Your task to perform on an android device: turn on bluetooth scan Image 0: 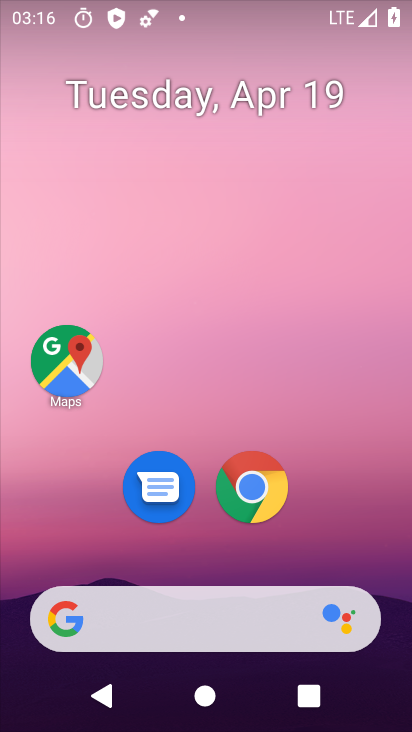
Step 0: click (61, 346)
Your task to perform on an android device: turn on bluetooth scan Image 1: 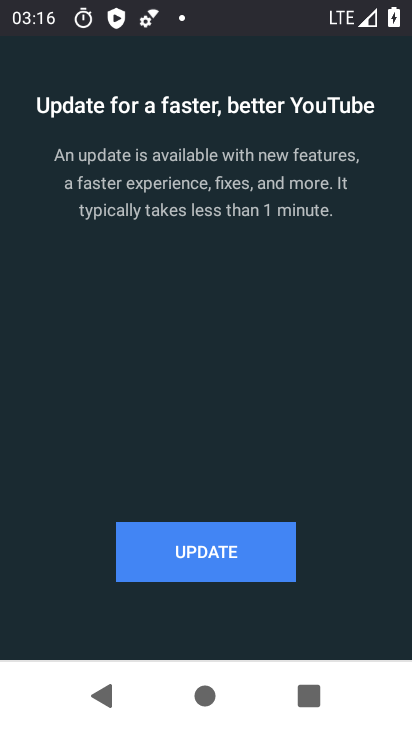
Step 1: press home button
Your task to perform on an android device: turn on bluetooth scan Image 2: 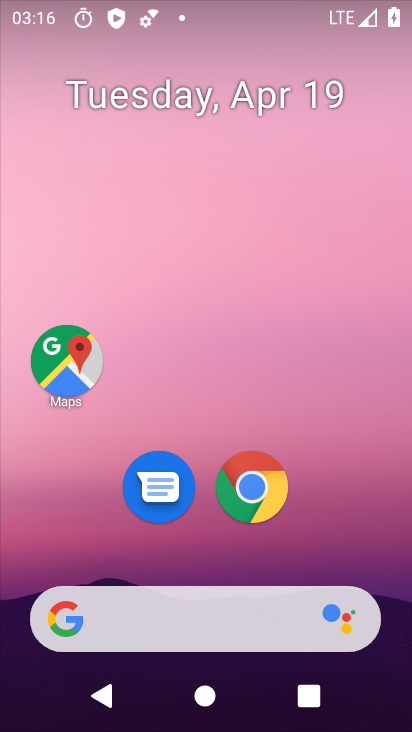
Step 2: drag from (229, 303) to (258, 31)
Your task to perform on an android device: turn on bluetooth scan Image 3: 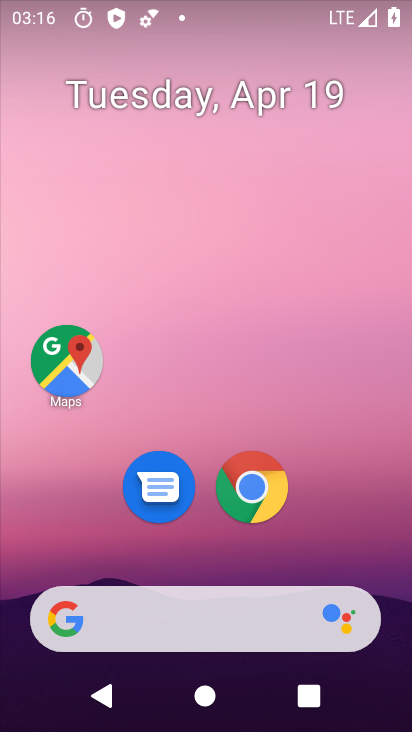
Step 3: drag from (206, 490) to (252, 21)
Your task to perform on an android device: turn on bluetooth scan Image 4: 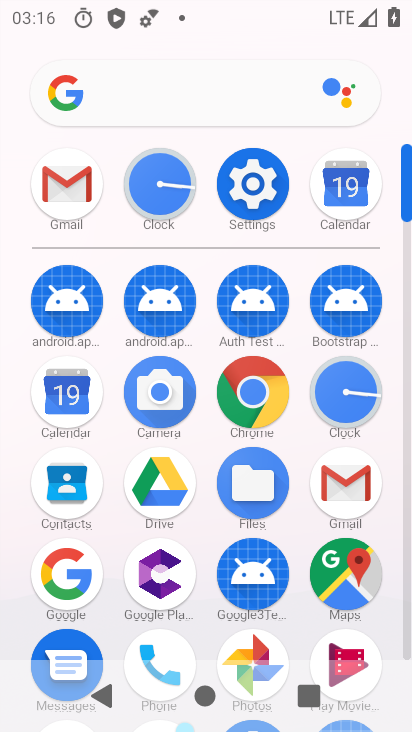
Step 4: click (247, 162)
Your task to perform on an android device: turn on bluetooth scan Image 5: 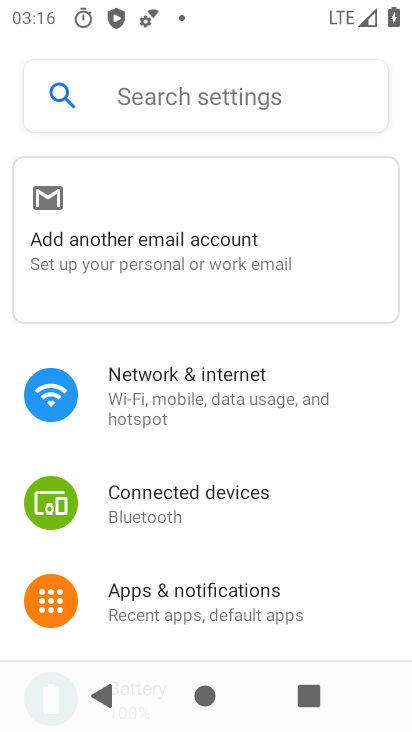
Step 5: click (134, 501)
Your task to perform on an android device: turn on bluetooth scan Image 6: 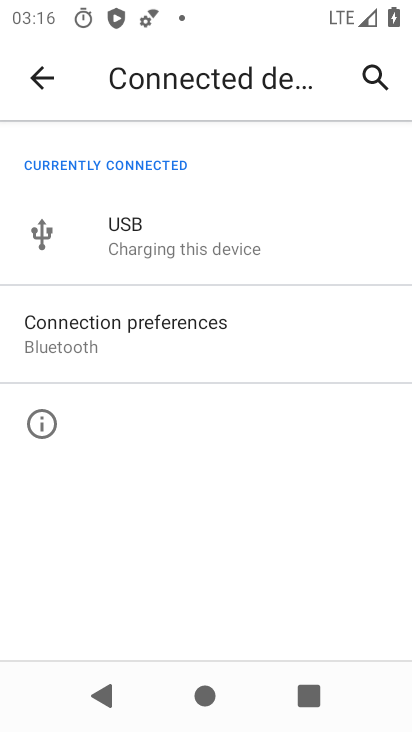
Step 6: click (147, 330)
Your task to perform on an android device: turn on bluetooth scan Image 7: 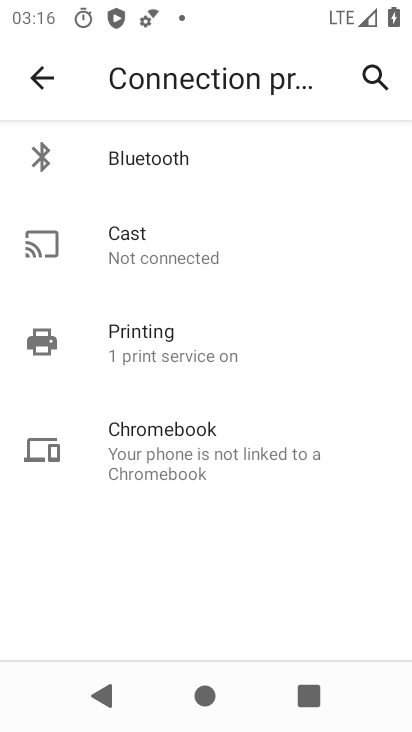
Step 7: click (101, 162)
Your task to perform on an android device: turn on bluetooth scan Image 8: 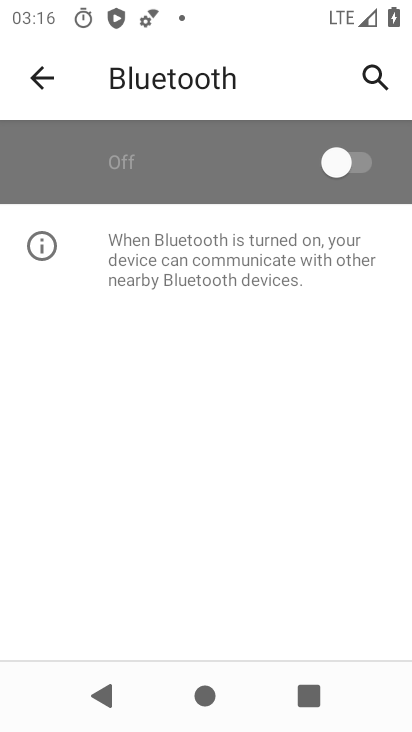
Step 8: click (351, 157)
Your task to perform on an android device: turn on bluetooth scan Image 9: 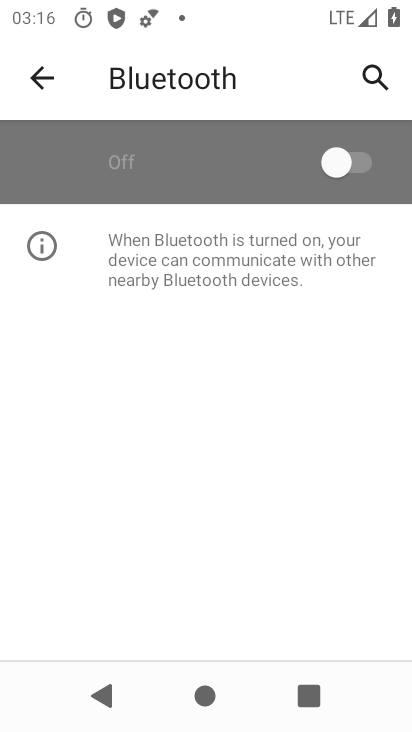
Step 9: task complete